Your task to perform on an android device: Open Android settings Image 0: 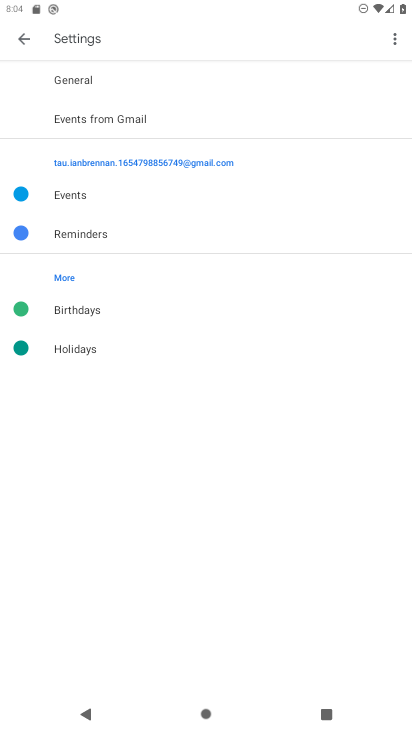
Step 0: press home button
Your task to perform on an android device: Open Android settings Image 1: 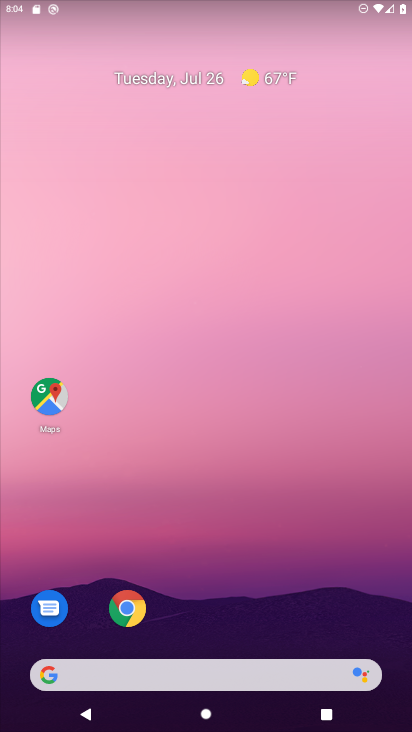
Step 1: drag from (222, 641) to (301, 13)
Your task to perform on an android device: Open Android settings Image 2: 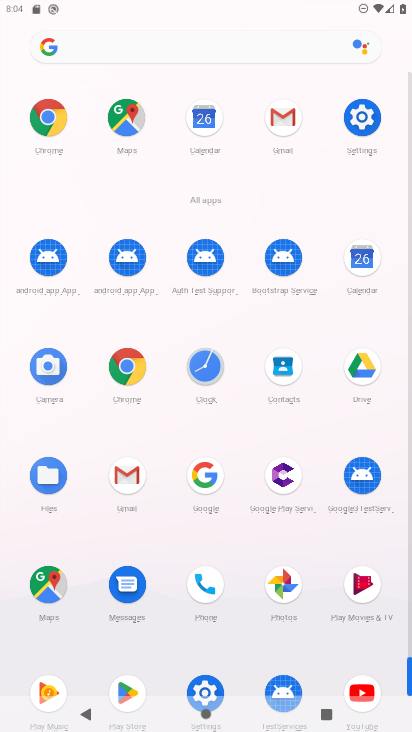
Step 2: drag from (227, 631) to (269, 364)
Your task to perform on an android device: Open Android settings Image 3: 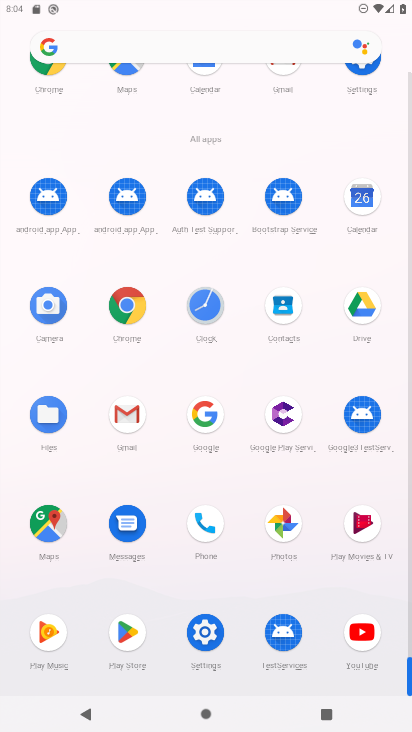
Step 3: click (205, 647)
Your task to perform on an android device: Open Android settings Image 4: 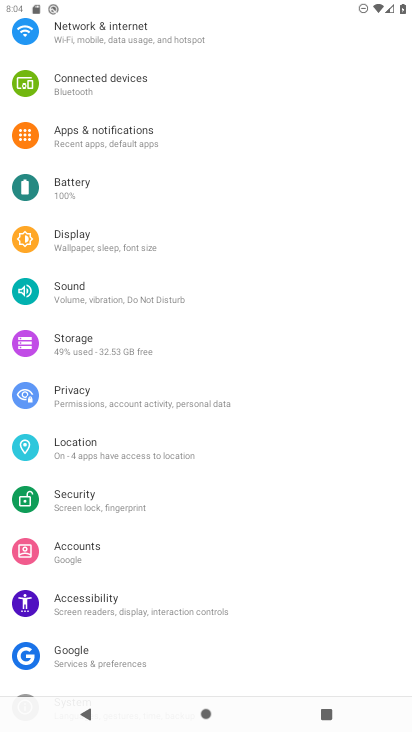
Step 4: drag from (114, 597) to (155, 210)
Your task to perform on an android device: Open Android settings Image 5: 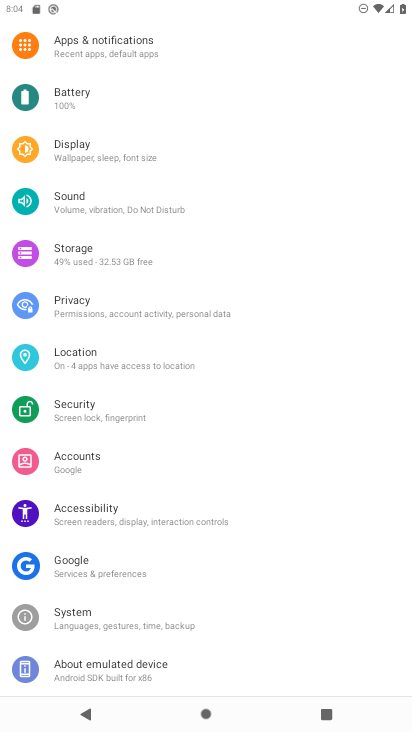
Step 5: click (109, 663)
Your task to perform on an android device: Open Android settings Image 6: 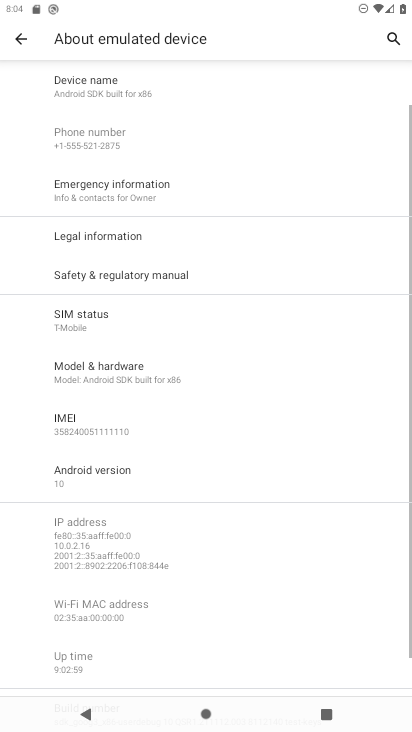
Step 6: click (99, 478)
Your task to perform on an android device: Open Android settings Image 7: 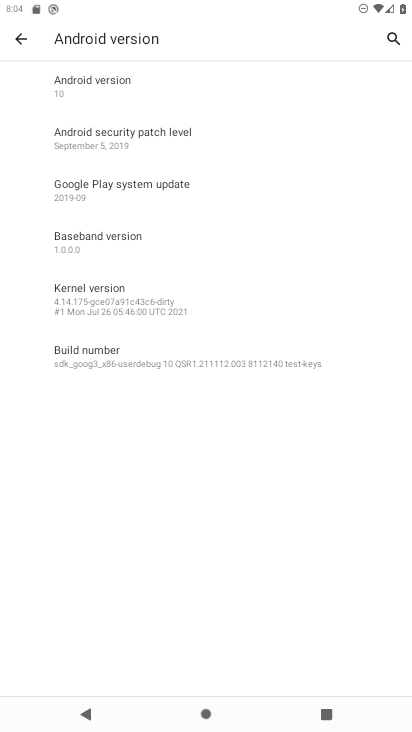
Step 7: task complete